Your task to perform on an android device: move a message to another label in the gmail app Image 0: 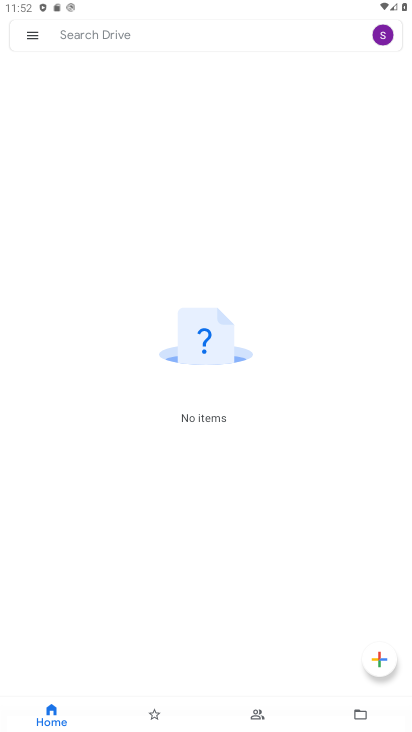
Step 0: task complete